Your task to perform on an android device: add a label to a message in the gmail app Image 0: 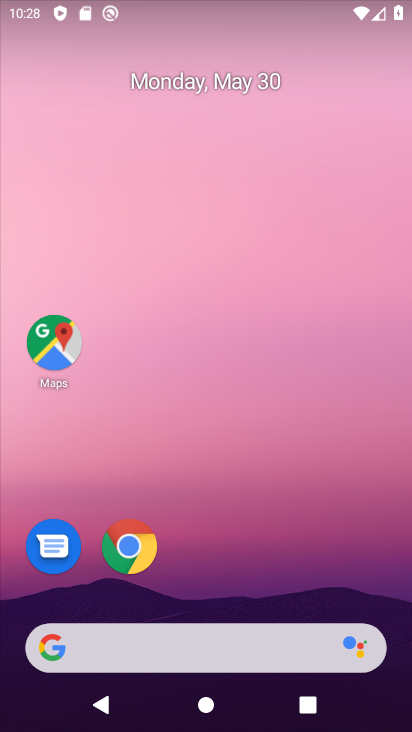
Step 0: drag from (215, 605) to (215, 62)
Your task to perform on an android device: add a label to a message in the gmail app Image 1: 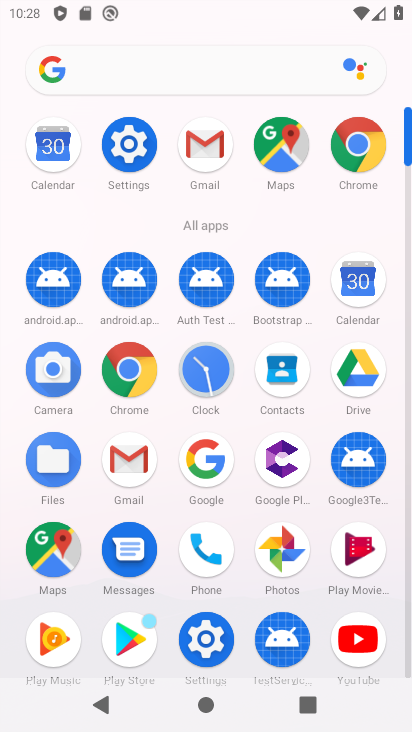
Step 1: click (203, 133)
Your task to perform on an android device: add a label to a message in the gmail app Image 2: 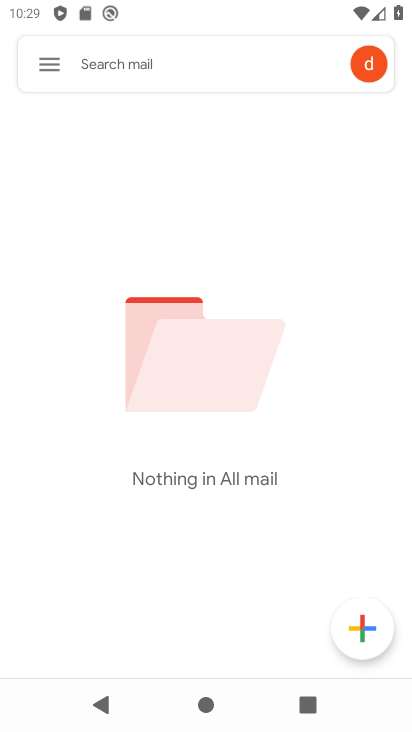
Step 2: task complete